Your task to perform on an android device: change your default location settings in chrome Image 0: 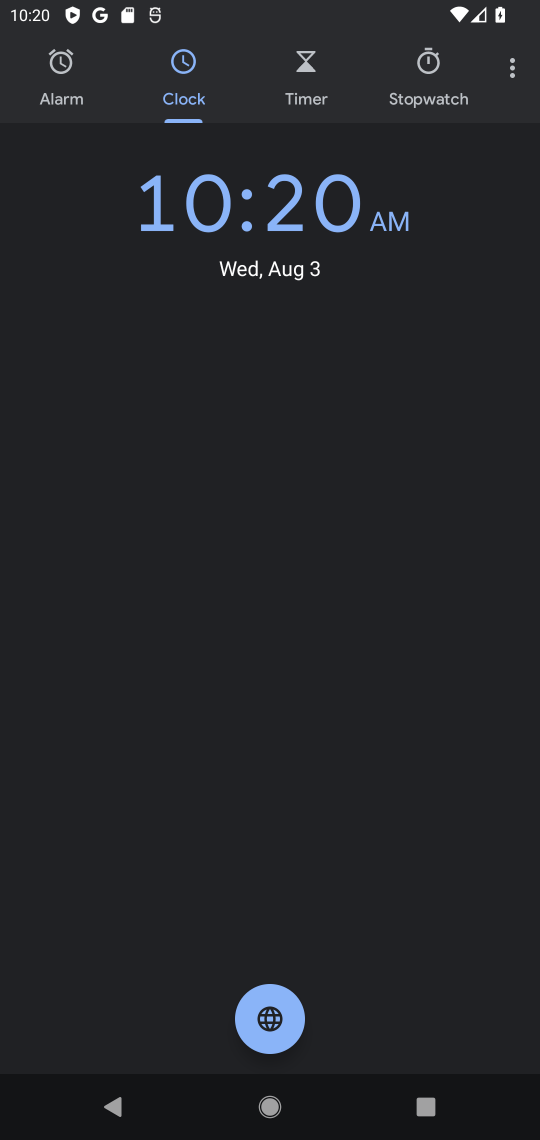
Step 0: press home button
Your task to perform on an android device: change your default location settings in chrome Image 1: 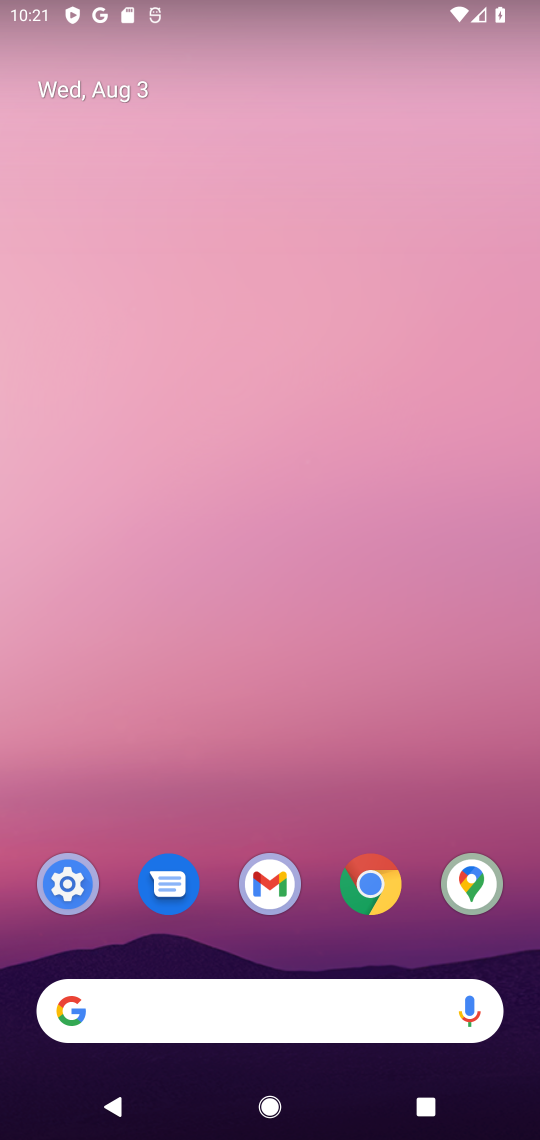
Step 1: click (362, 896)
Your task to perform on an android device: change your default location settings in chrome Image 2: 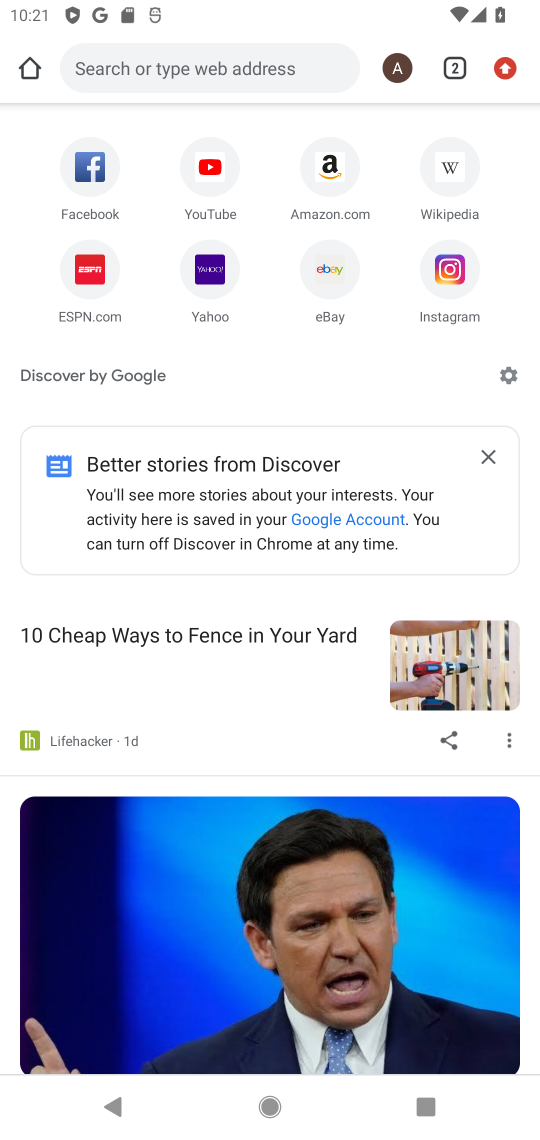
Step 2: drag from (498, 60) to (294, 690)
Your task to perform on an android device: change your default location settings in chrome Image 3: 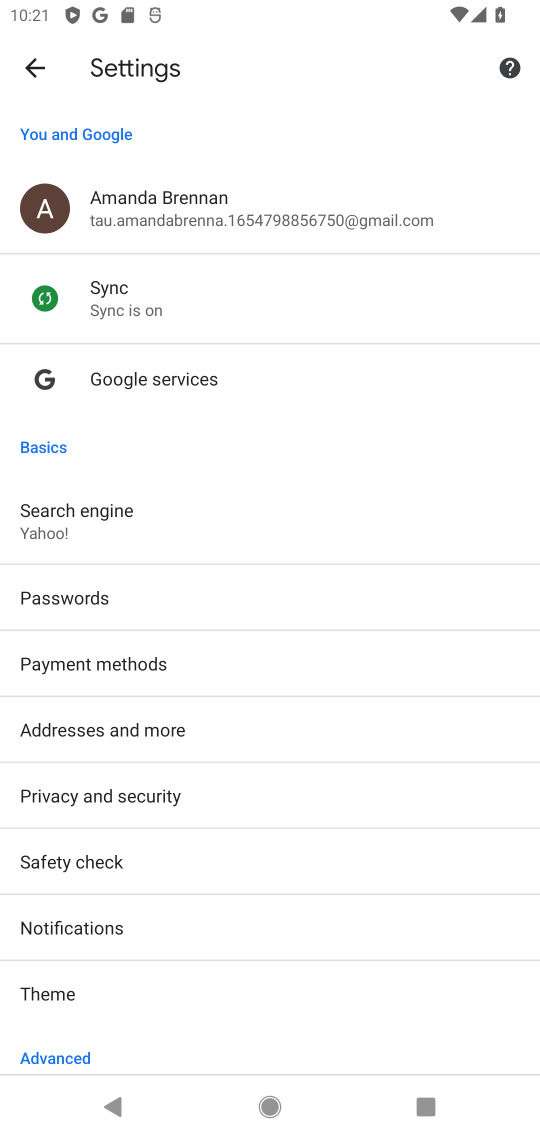
Step 3: drag from (253, 979) to (280, 331)
Your task to perform on an android device: change your default location settings in chrome Image 4: 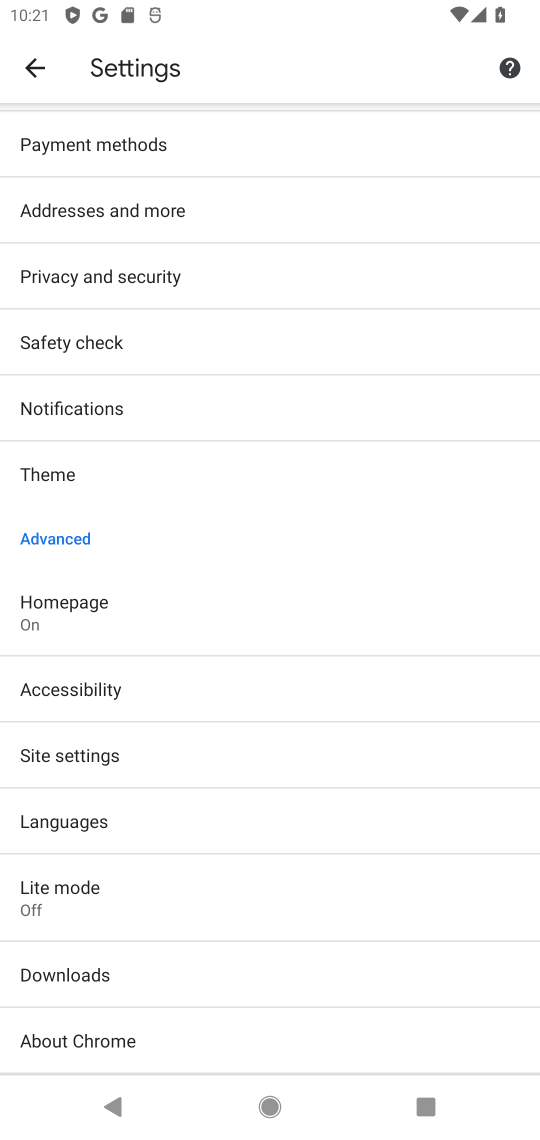
Step 4: click (37, 754)
Your task to perform on an android device: change your default location settings in chrome Image 5: 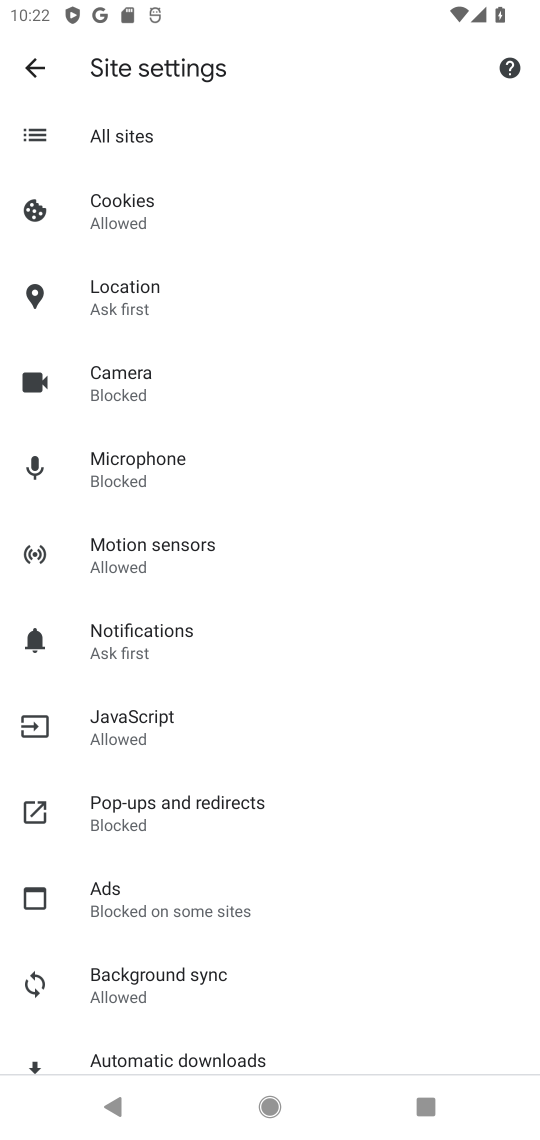
Step 5: click (111, 300)
Your task to perform on an android device: change your default location settings in chrome Image 6: 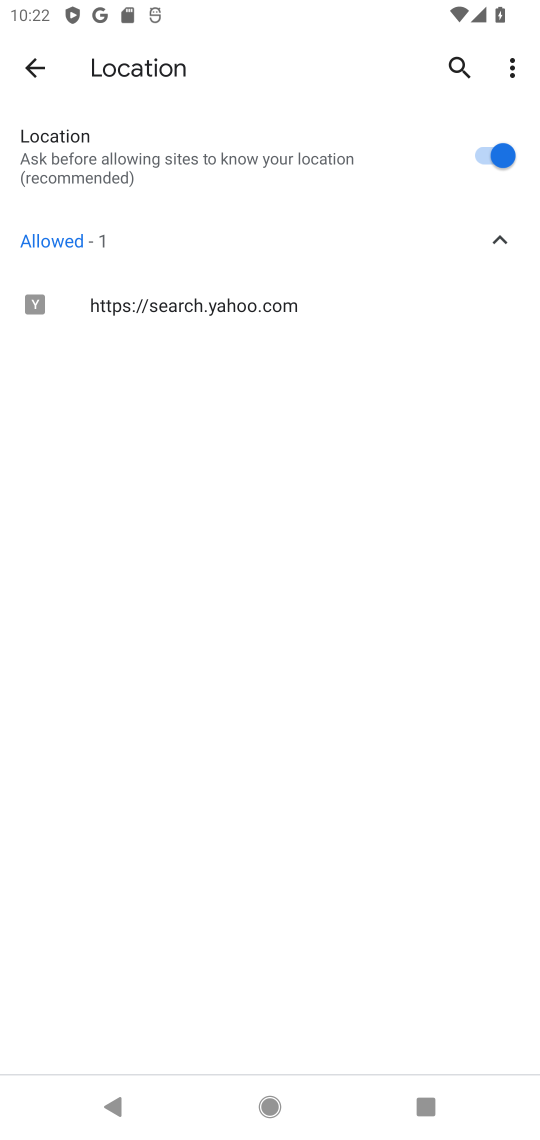
Step 6: click (500, 155)
Your task to perform on an android device: change your default location settings in chrome Image 7: 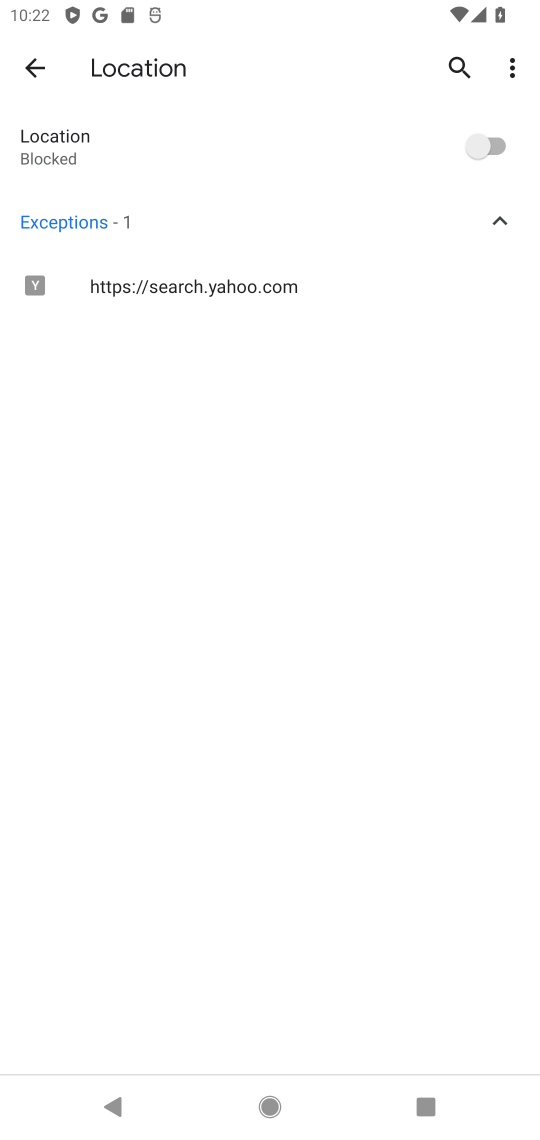
Step 7: task complete